Your task to perform on an android device: find which apps use the phone's location Image 0: 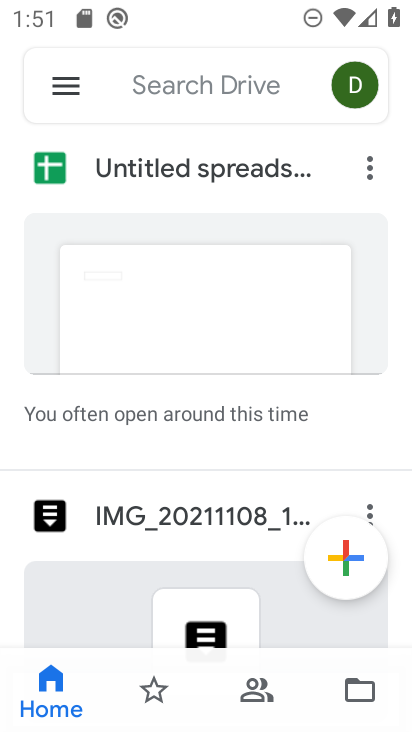
Step 0: press home button
Your task to perform on an android device: find which apps use the phone's location Image 1: 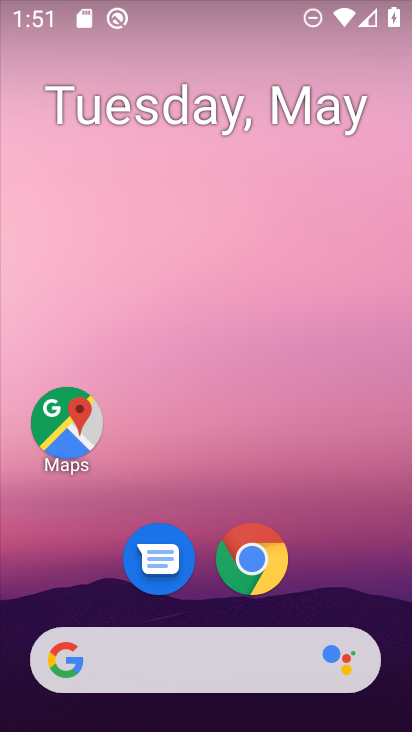
Step 1: drag from (390, 628) to (293, 3)
Your task to perform on an android device: find which apps use the phone's location Image 2: 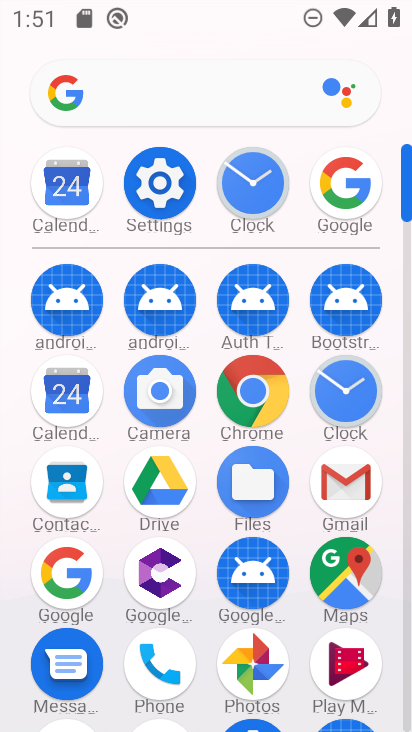
Step 2: click (147, 172)
Your task to perform on an android device: find which apps use the phone's location Image 3: 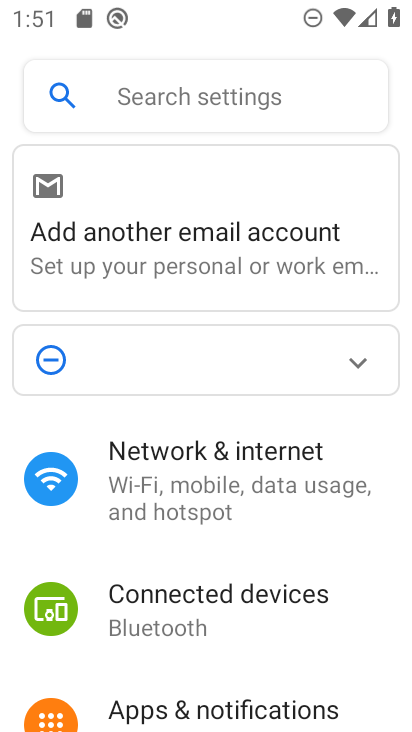
Step 3: drag from (248, 640) to (238, 360)
Your task to perform on an android device: find which apps use the phone's location Image 4: 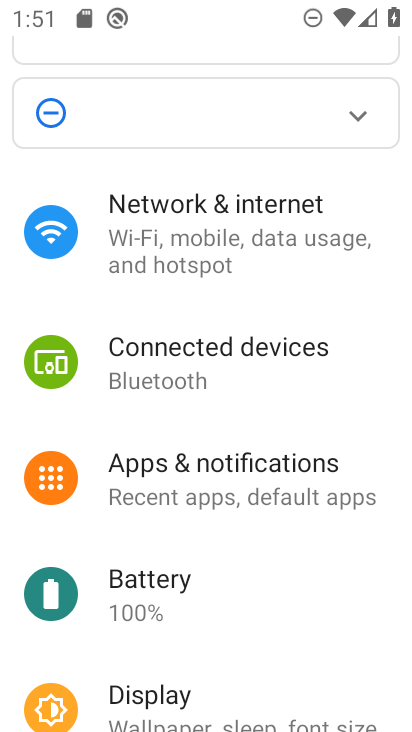
Step 4: drag from (156, 585) to (202, 307)
Your task to perform on an android device: find which apps use the phone's location Image 5: 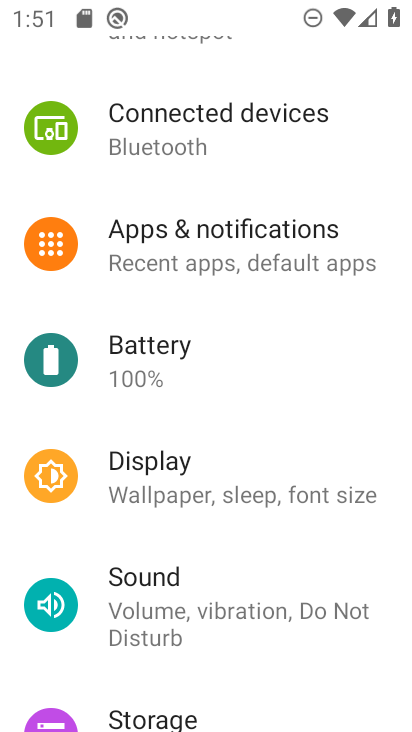
Step 5: drag from (146, 596) to (241, 291)
Your task to perform on an android device: find which apps use the phone's location Image 6: 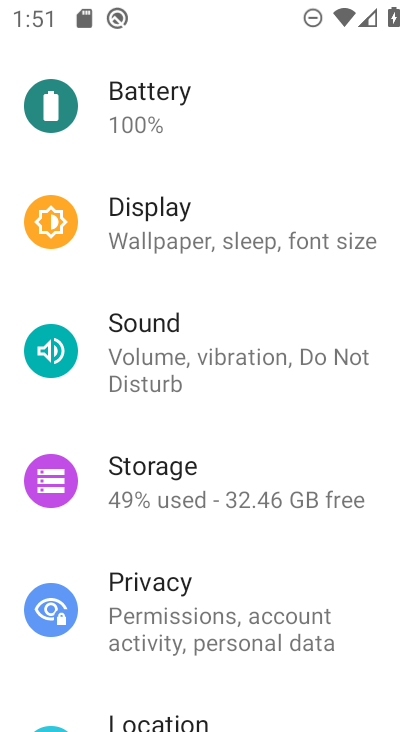
Step 6: drag from (198, 661) to (234, 512)
Your task to perform on an android device: find which apps use the phone's location Image 7: 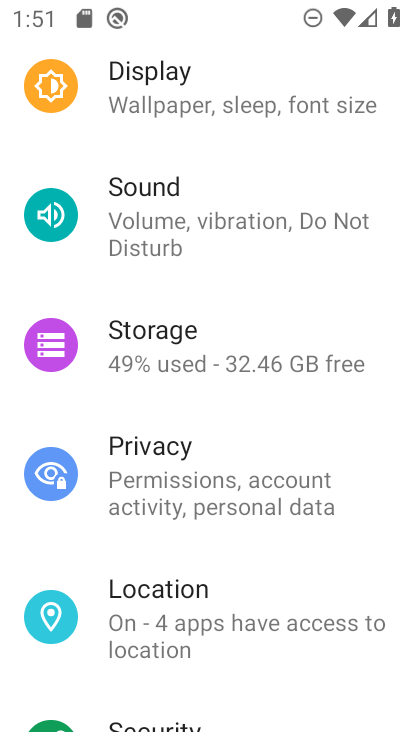
Step 7: click (180, 599)
Your task to perform on an android device: find which apps use the phone's location Image 8: 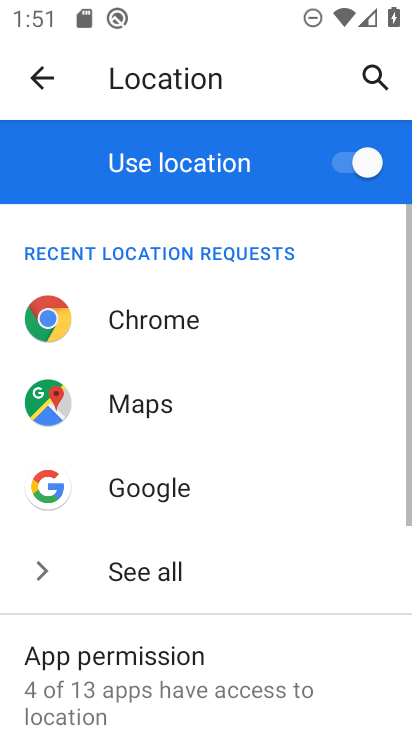
Step 8: click (144, 644)
Your task to perform on an android device: find which apps use the phone's location Image 9: 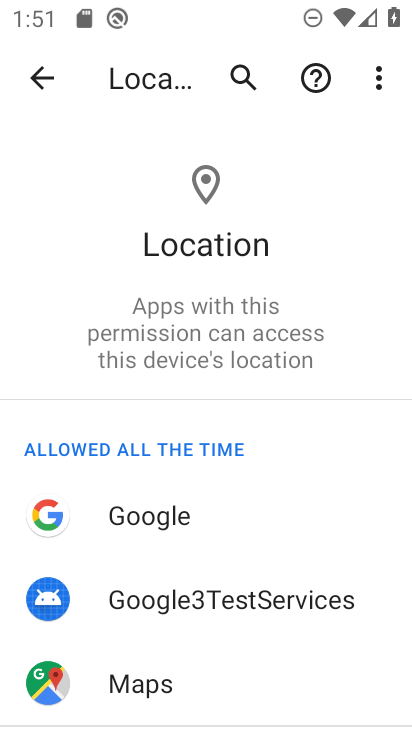
Step 9: drag from (138, 627) to (145, 286)
Your task to perform on an android device: find which apps use the phone's location Image 10: 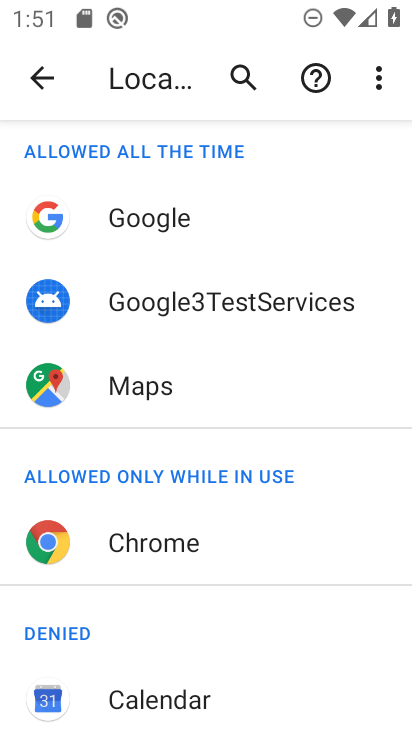
Step 10: drag from (146, 602) to (174, 244)
Your task to perform on an android device: find which apps use the phone's location Image 11: 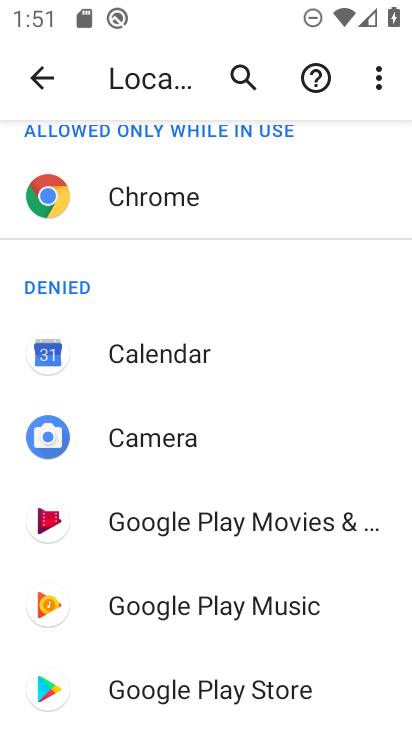
Step 11: drag from (153, 617) to (186, 294)
Your task to perform on an android device: find which apps use the phone's location Image 12: 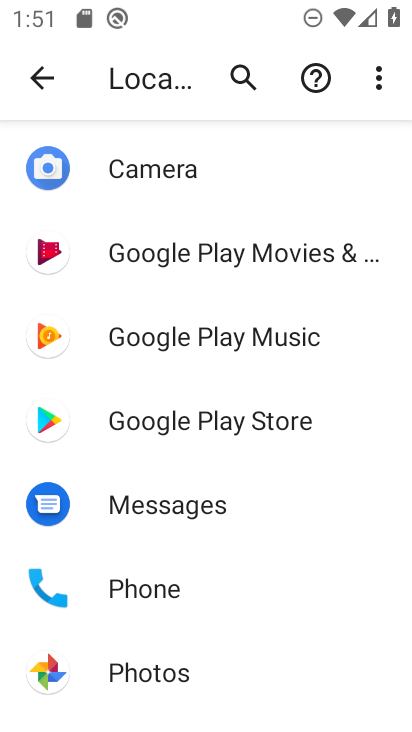
Step 12: click (212, 596)
Your task to perform on an android device: find which apps use the phone's location Image 13: 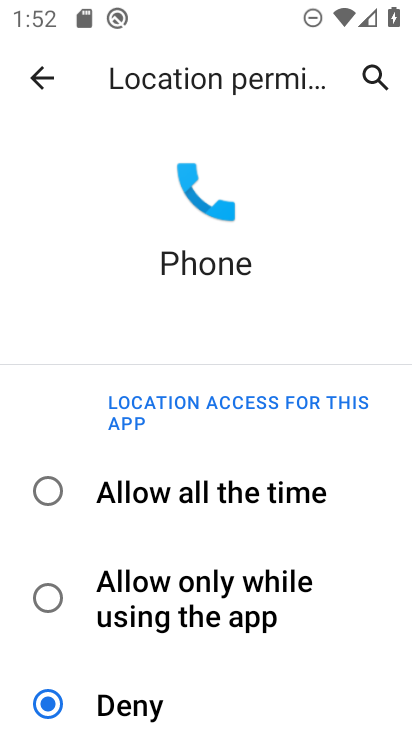
Step 13: click (42, 496)
Your task to perform on an android device: find which apps use the phone's location Image 14: 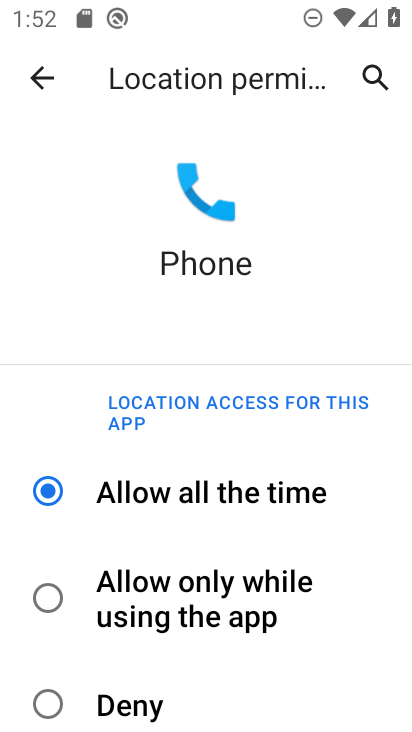
Step 14: task complete